Your task to perform on an android device: make emails show in primary in the gmail app Image 0: 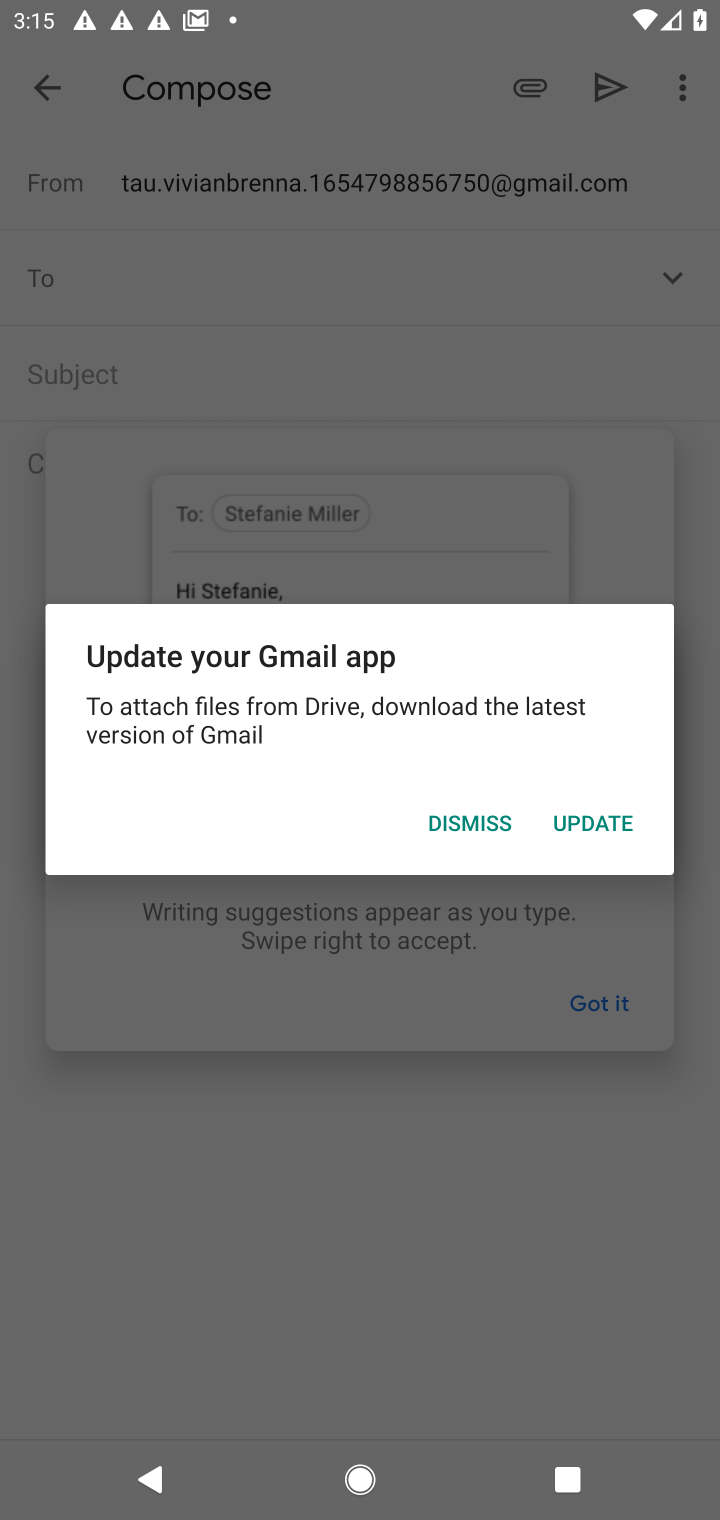
Step 0: press home button
Your task to perform on an android device: make emails show in primary in the gmail app Image 1: 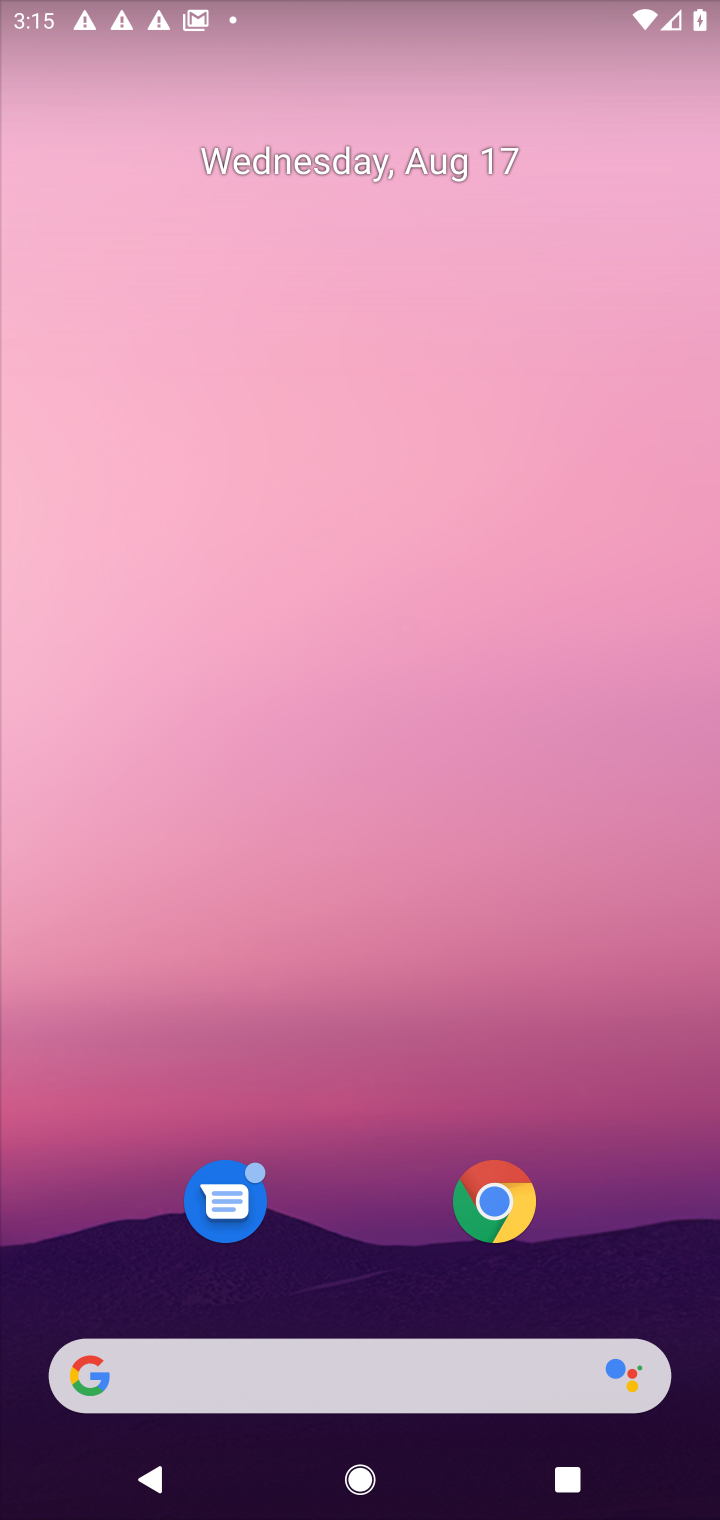
Step 1: drag from (379, 1271) to (428, 0)
Your task to perform on an android device: make emails show in primary in the gmail app Image 2: 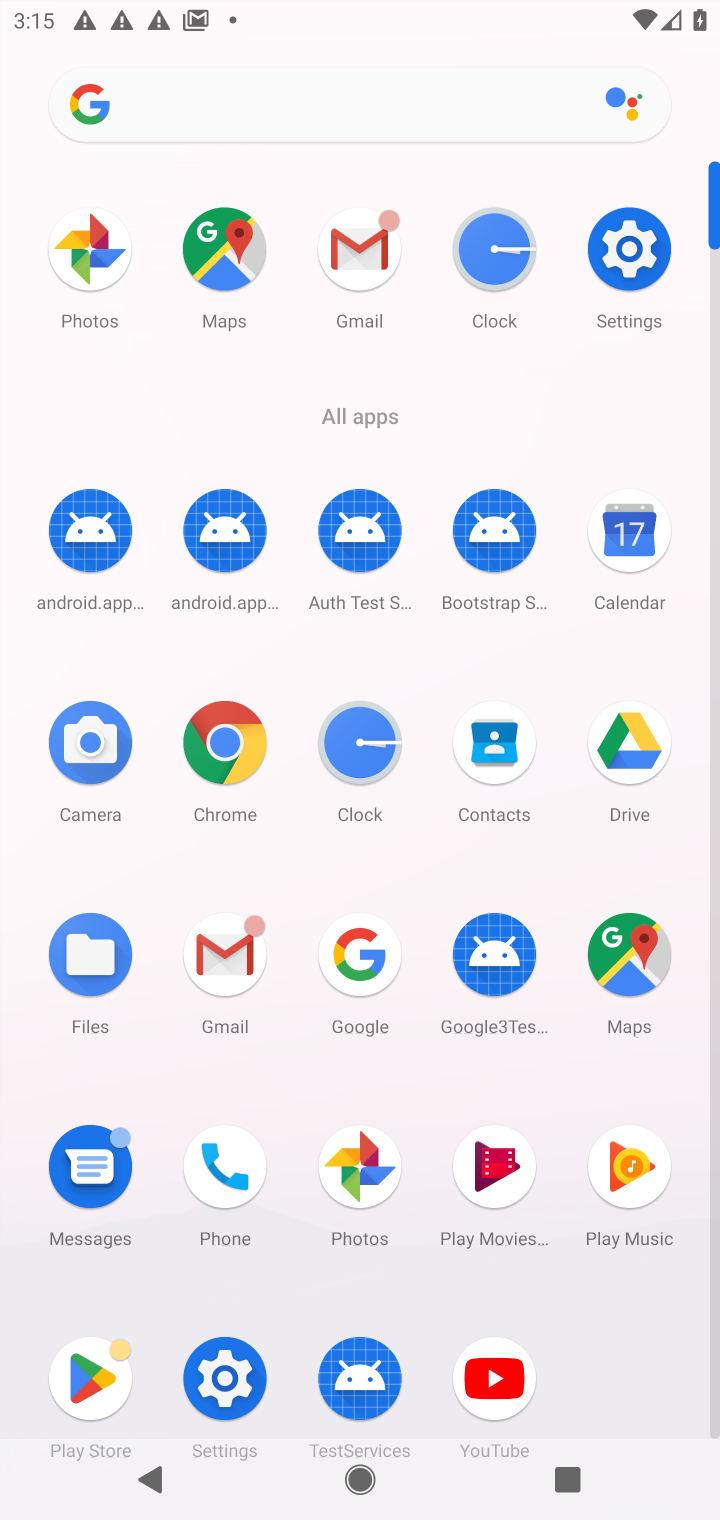
Step 2: click (221, 967)
Your task to perform on an android device: make emails show in primary in the gmail app Image 3: 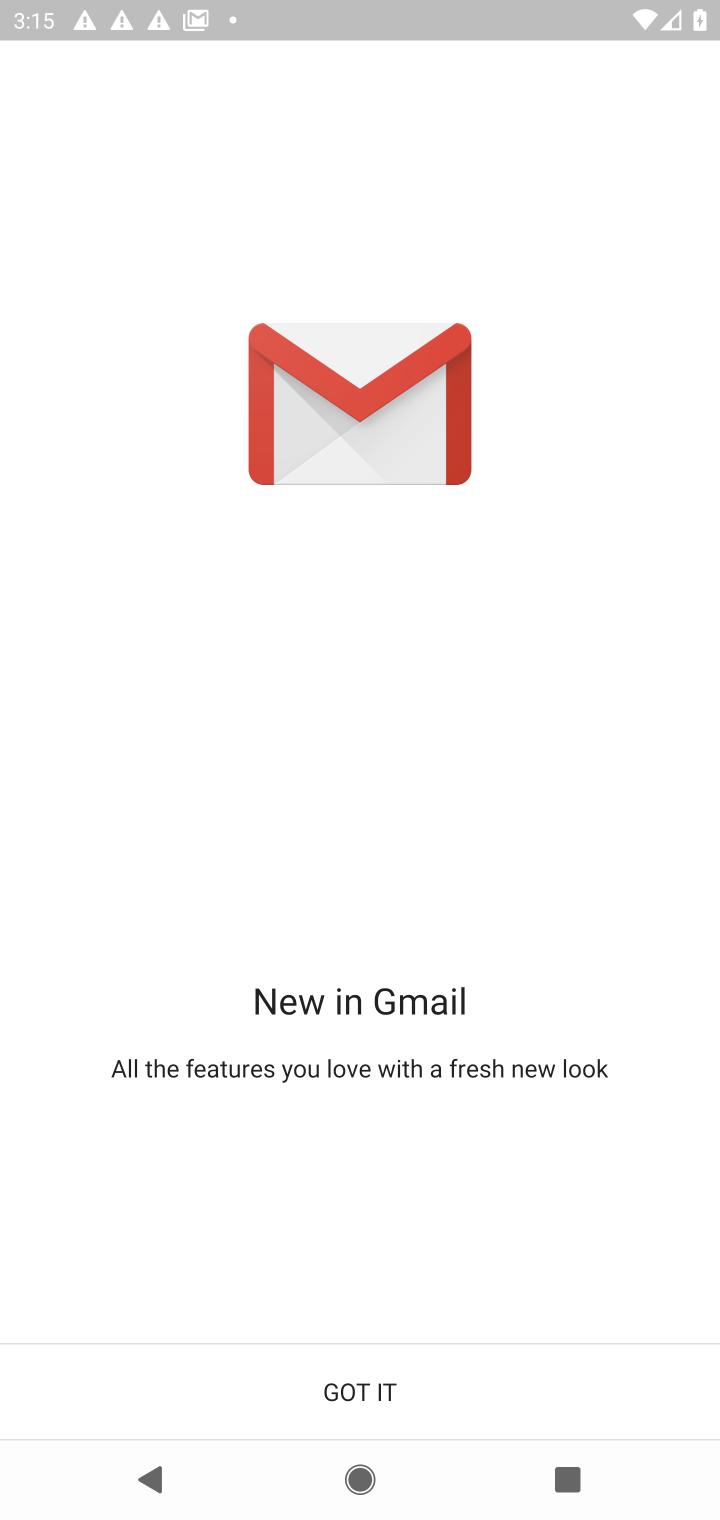
Step 3: click (465, 1376)
Your task to perform on an android device: make emails show in primary in the gmail app Image 4: 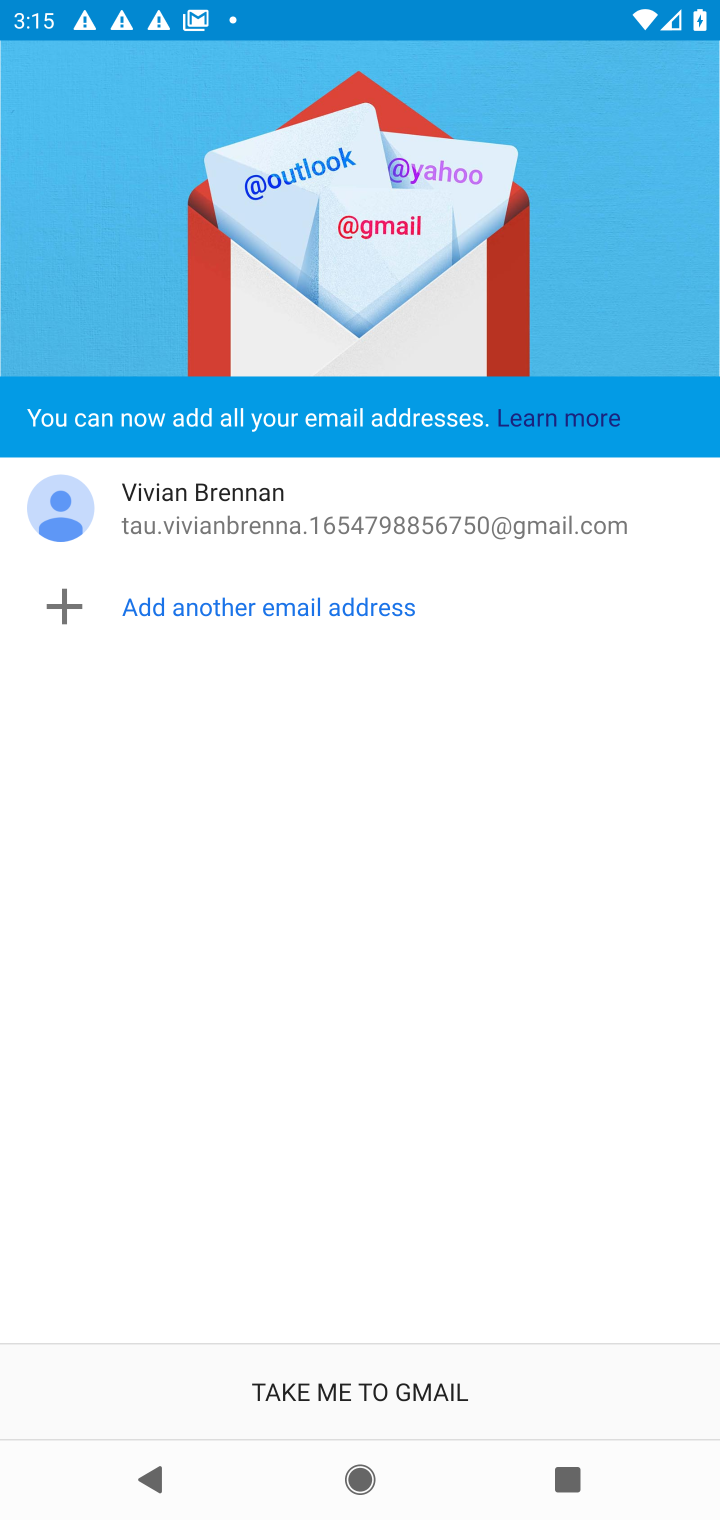
Step 4: click (465, 1376)
Your task to perform on an android device: make emails show in primary in the gmail app Image 5: 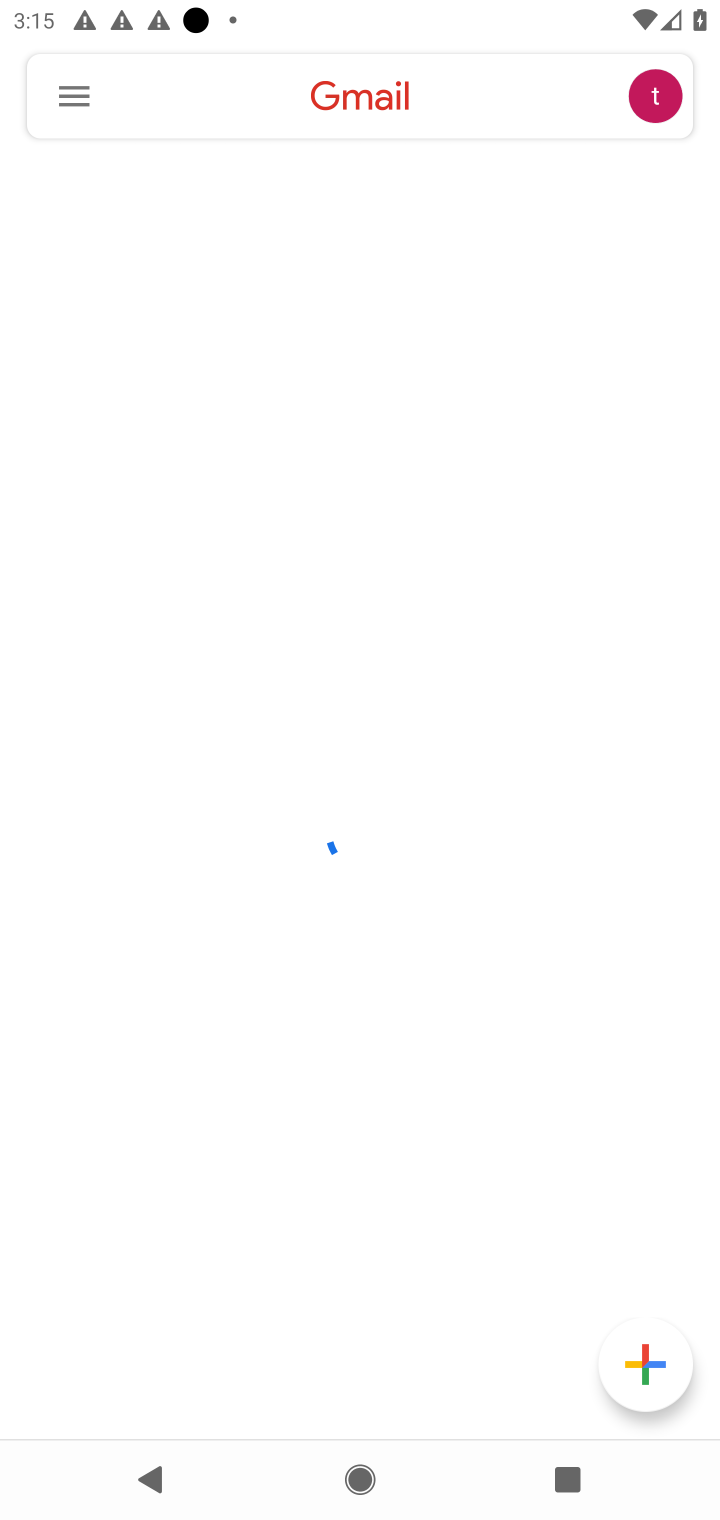
Step 5: click (56, 105)
Your task to perform on an android device: make emails show in primary in the gmail app Image 6: 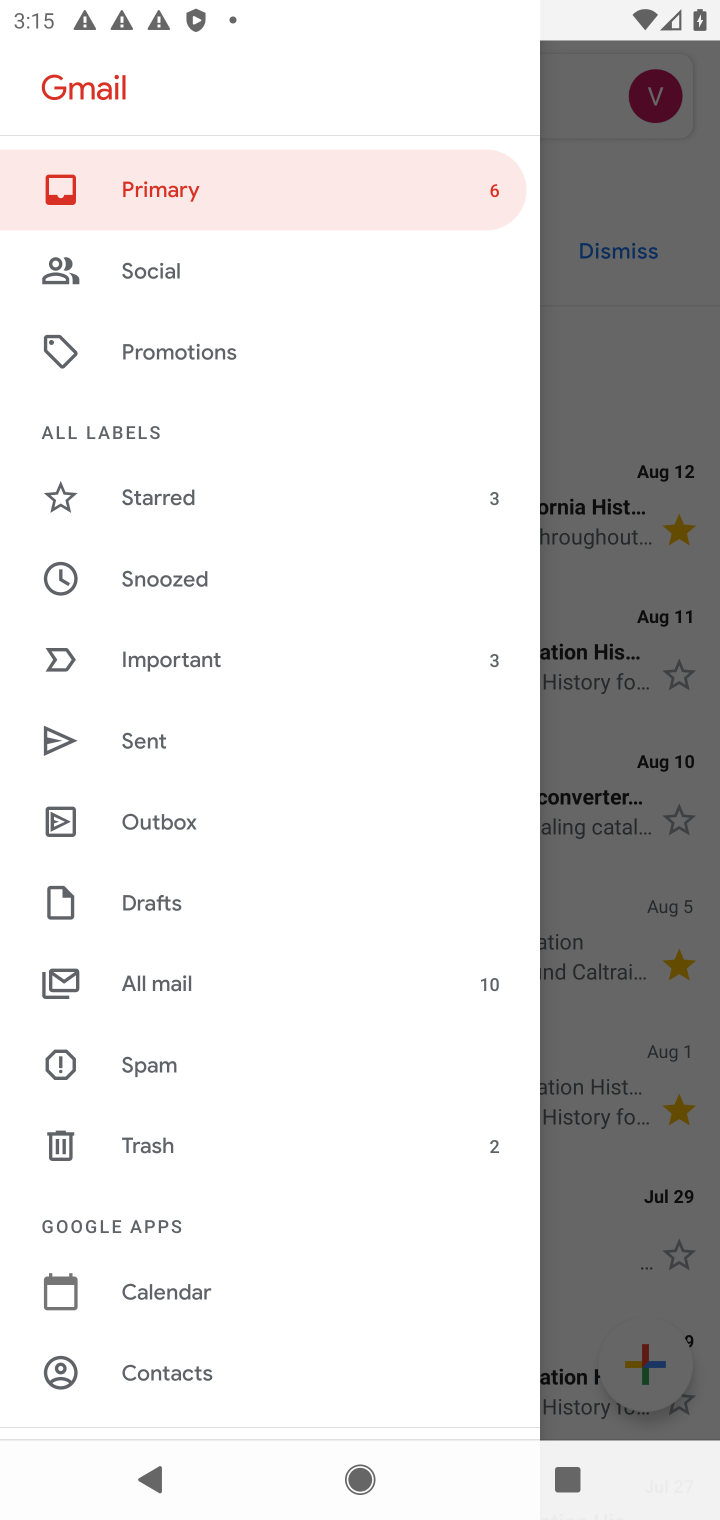
Step 6: drag from (176, 1152) to (264, 209)
Your task to perform on an android device: make emails show in primary in the gmail app Image 7: 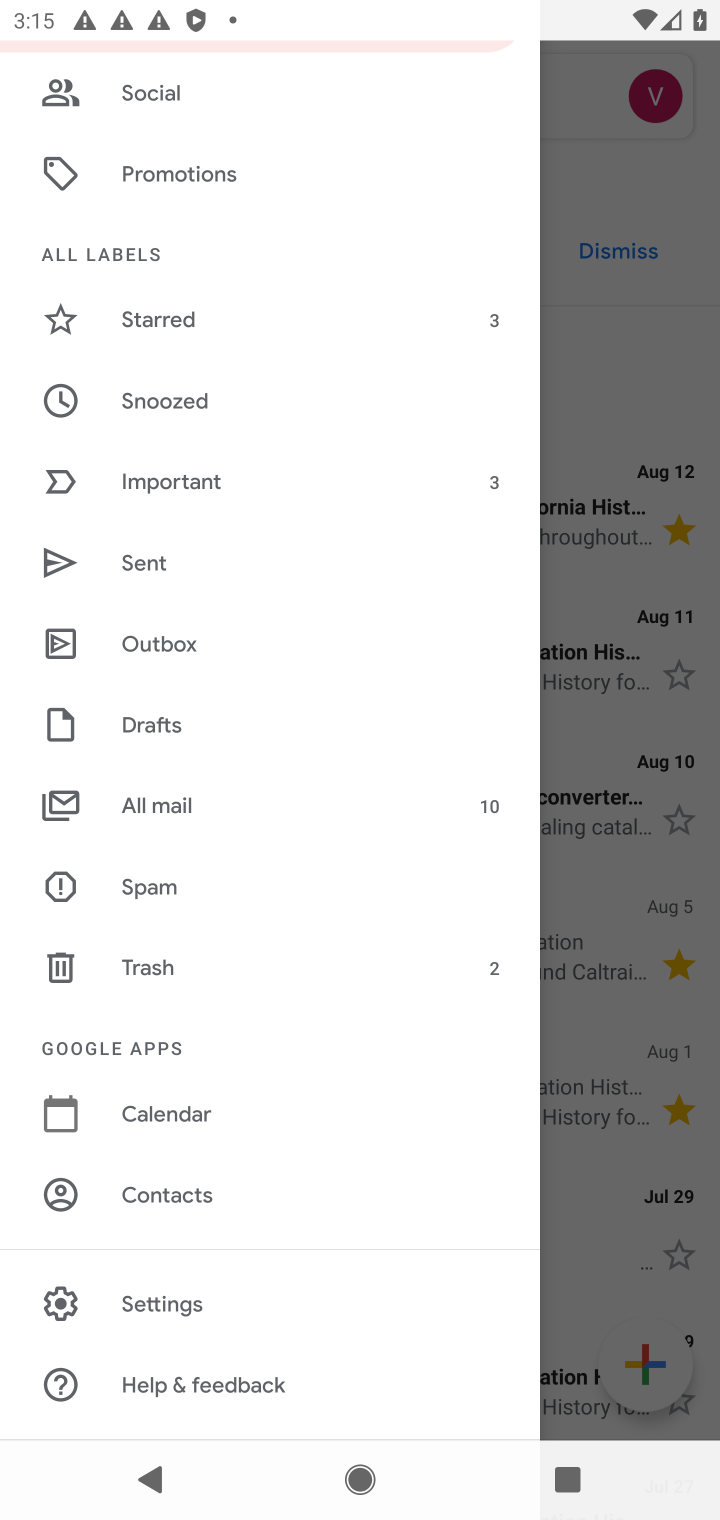
Step 7: click (134, 1310)
Your task to perform on an android device: make emails show in primary in the gmail app Image 8: 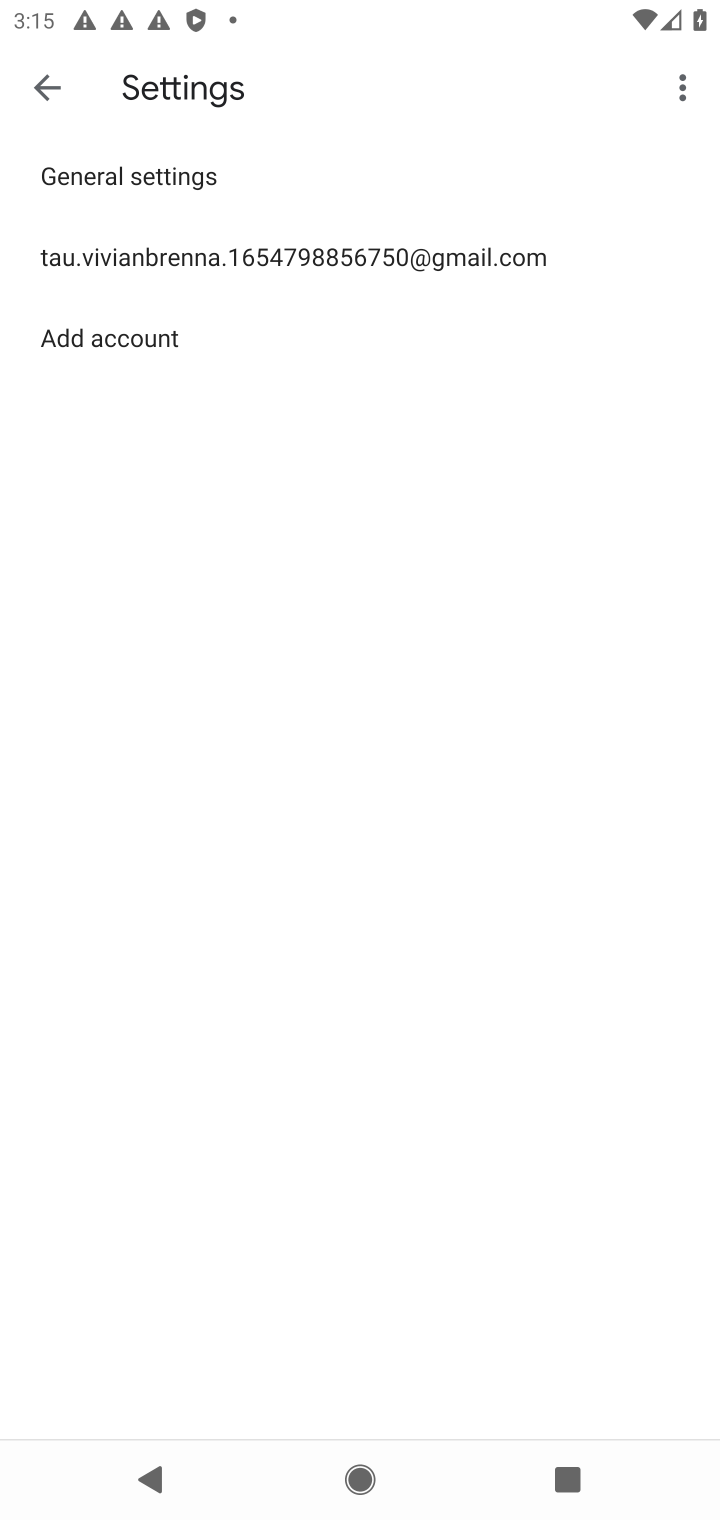
Step 8: click (242, 250)
Your task to perform on an android device: make emails show in primary in the gmail app Image 9: 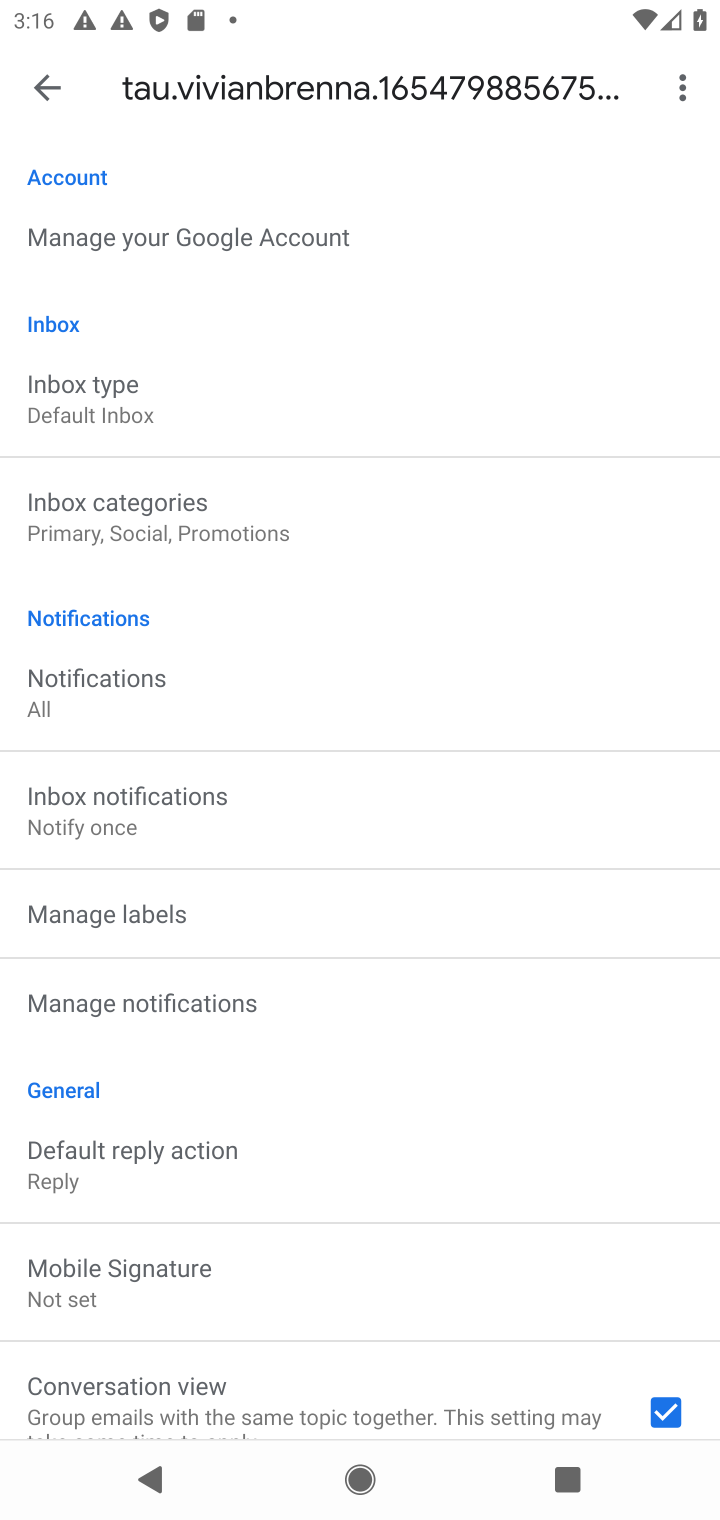
Step 9: click (203, 519)
Your task to perform on an android device: make emails show in primary in the gmail app Image 10: 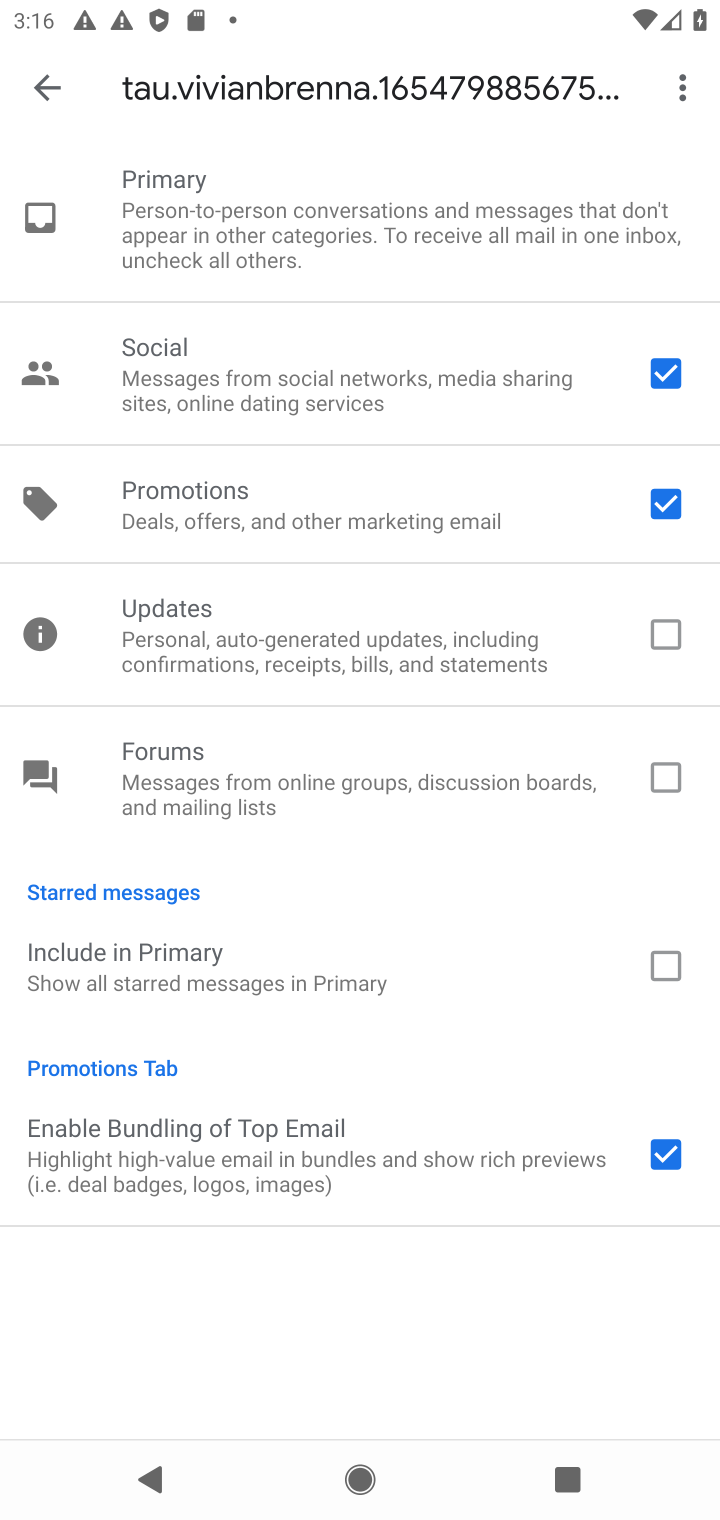
Step 10: click (662, 493)
Your task to perform on an android device: make emails show in primary in the gmail app Image 11: 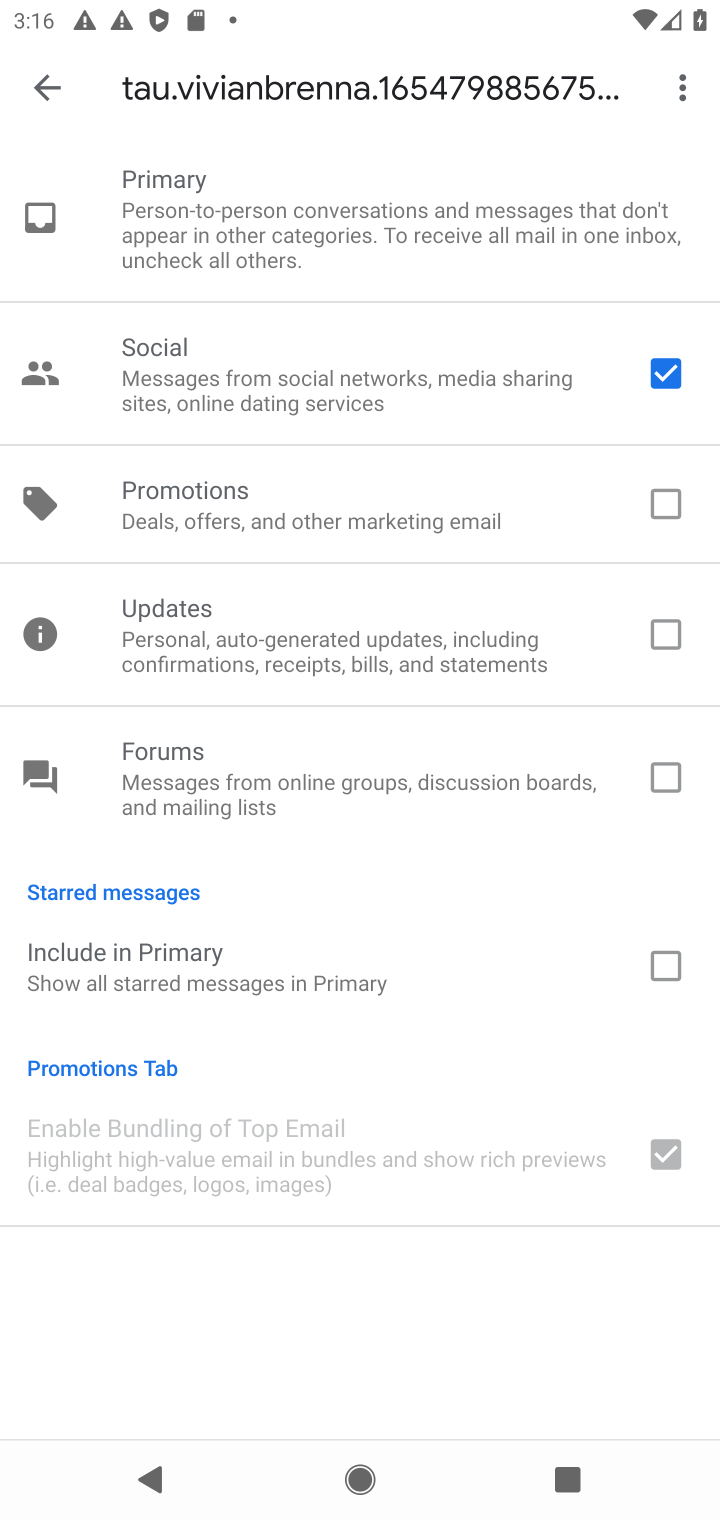
Step 11: click (670, 373)
Your task to perform on an android device: make emails show in primary in the gmail app Image 12: 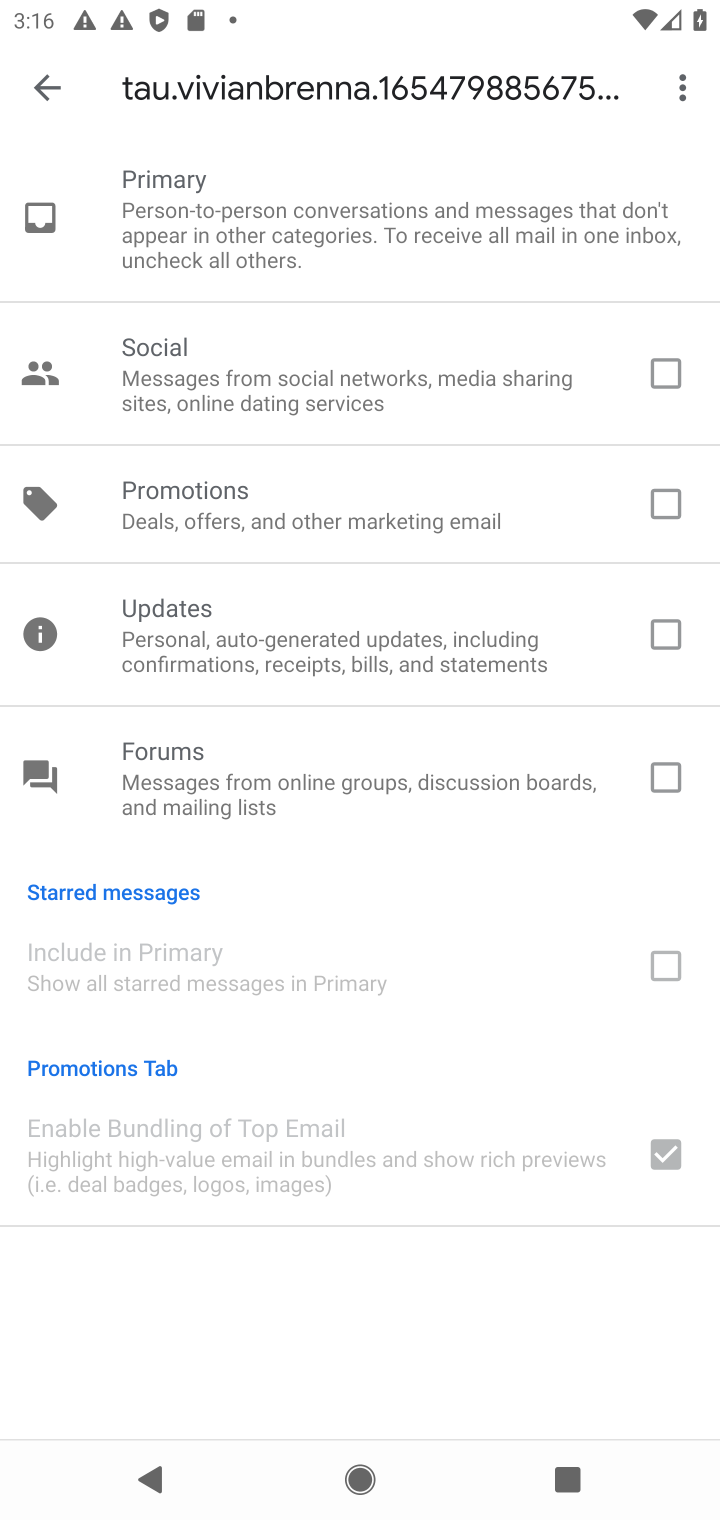
Step 12: task complete